Your task to perform on an android device: Go to Wikipedia Image 0: 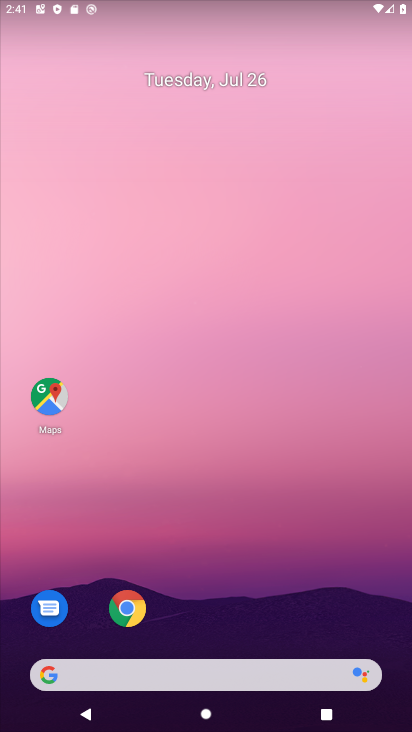
Step 0: click (263, 673)
Your task to perform on an android device: Go to Wikipedia Image 1: 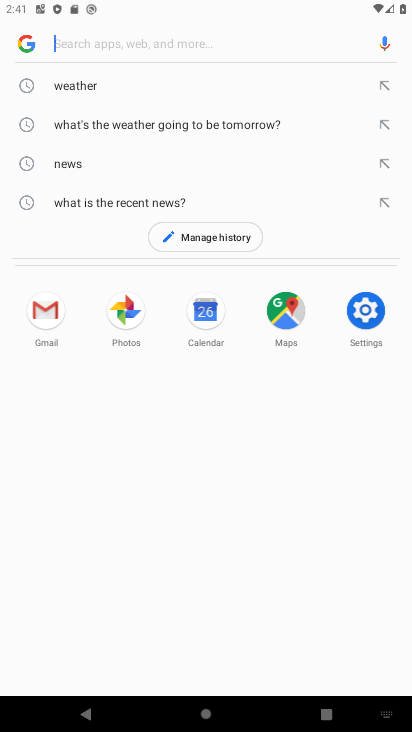
Step 1: type "Wikipedia"
Your task to perform on an android device: Go to Wikipedia Image 2: 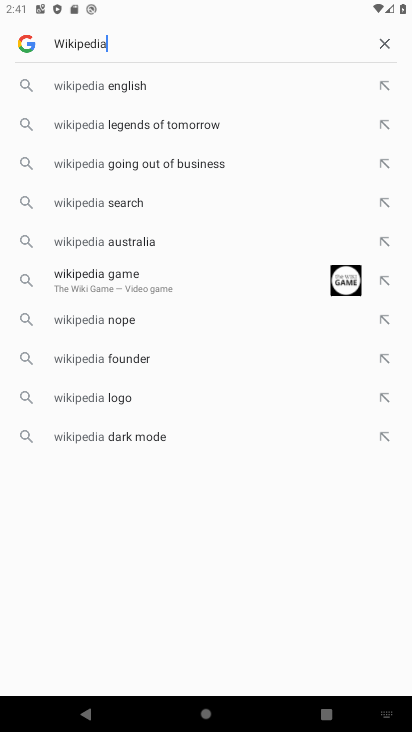
Step 2: task complete